Your task to perform on an android device: Open the calendar and show me this week's events? Image 0: 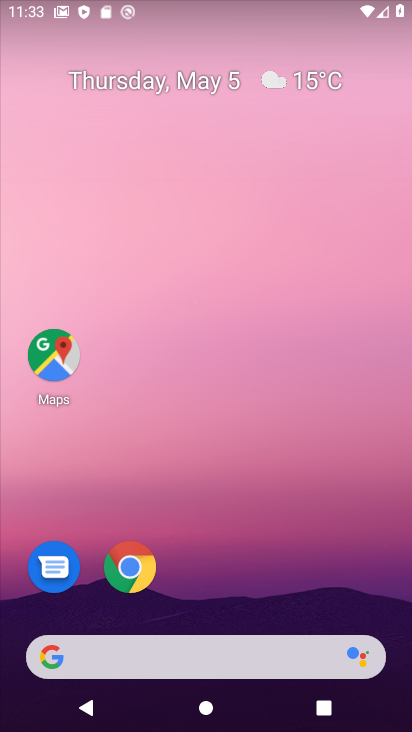
Step 0: drag from (278, 597) to (221, 20)
Your task to perform on an android device: Open the calendar and show me this week's events? Image 1: 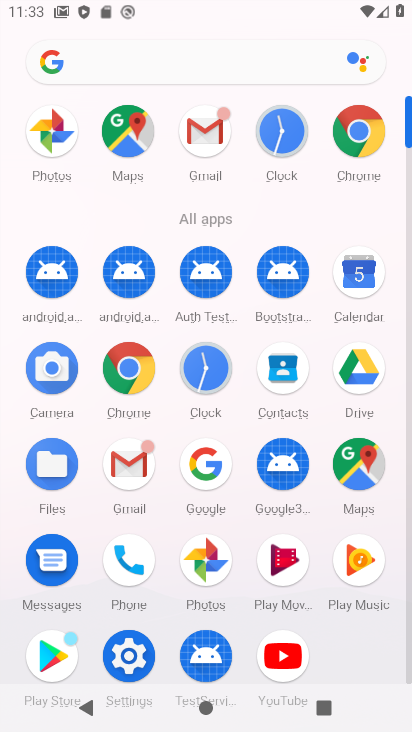
Step 1: click (354, 273)
Your task to perform on an android device: Open the calendar and show me this week's events? Image 2: 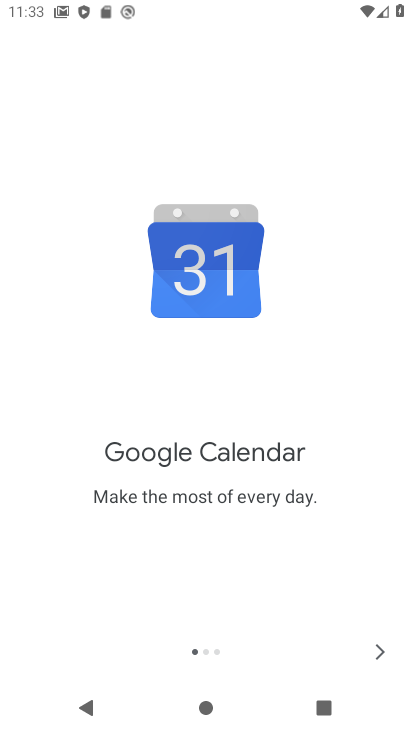
Step 2: click (377, 648)
Your task to perform on an android device: Open the calendar and show me this week's events? Image 3: 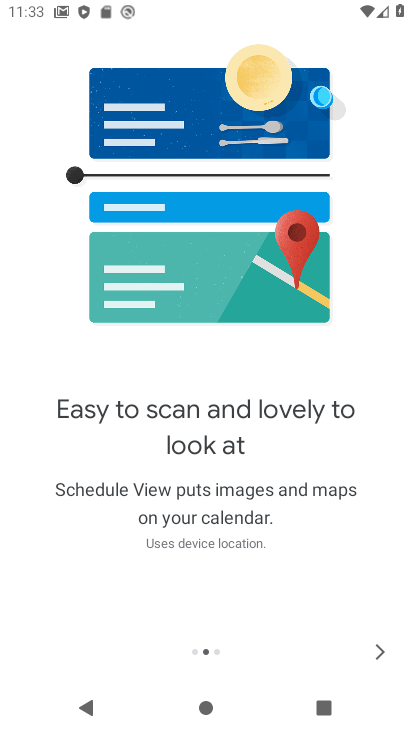
Step 3: click (375, 647)
Your task to perform on an android device: Open the calendar and show me this week's events? Image 4: 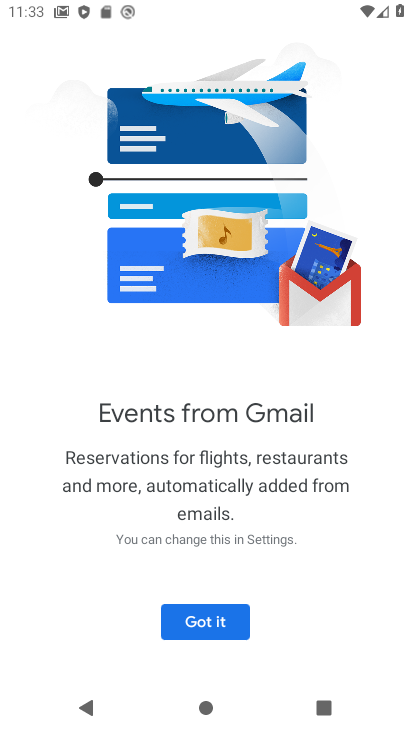
Step 4: click (375, 648)
Your task to perform on an android device: Open the calendar and show me this week's events? Image 5: 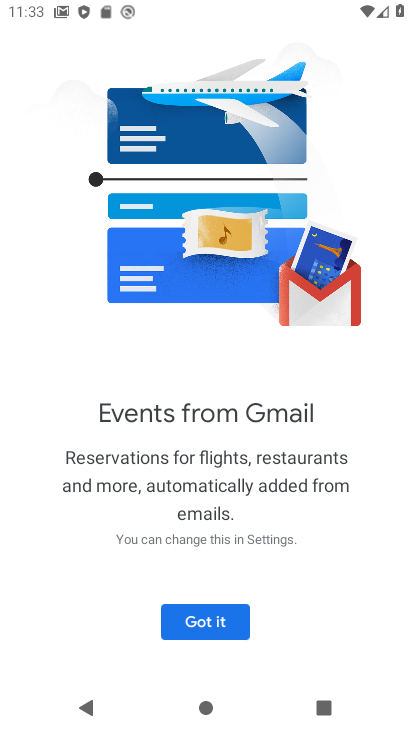
Step 5: click (265, 617)
Your task to perform on an android device: Open the calendar and show me this week's events? Image 6: 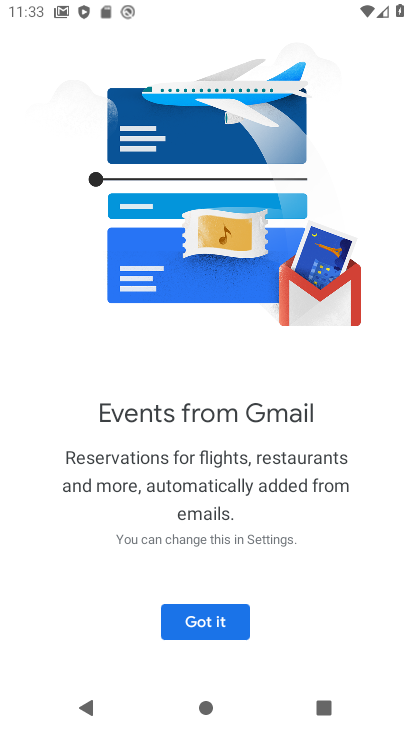
Step 6: click (232, 615)
Your task to perform on an android device: Open the calendar and show me this week's events? Image 7: 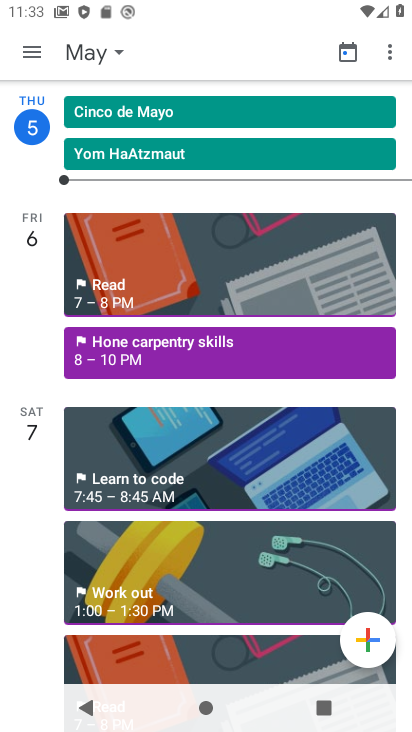
Step 7: click (39, 51)
Your task to perform on an android device: Open the calendar and show me this week's events? Image 8: 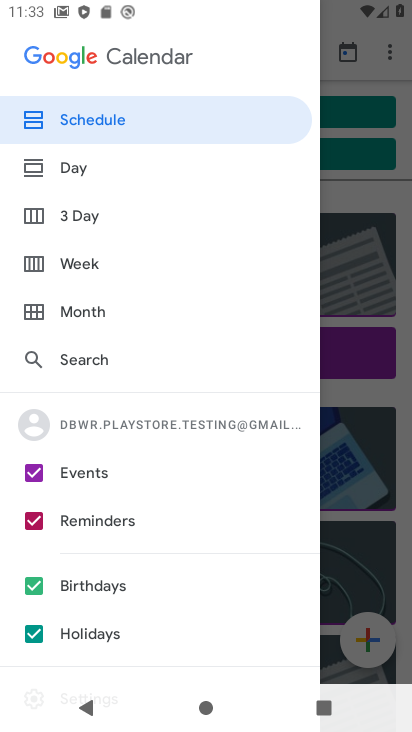
Step 8: click (86, 258)
Your task to perform on an android device: Open the calendar and show me this week's events? Image 9: 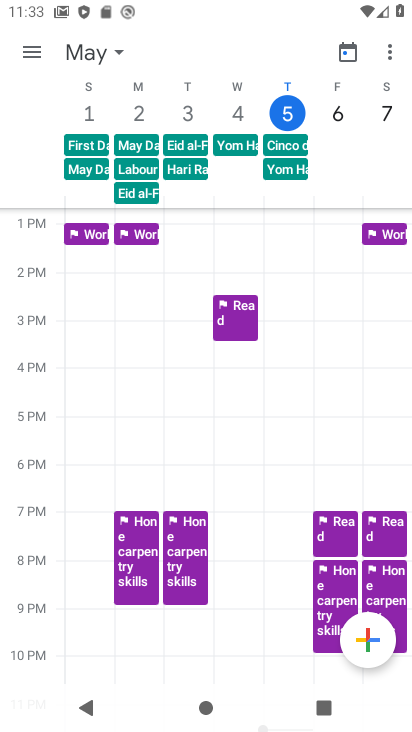
Step 9: task complete